Your task to perform on an android device: Open eBay Image 0: 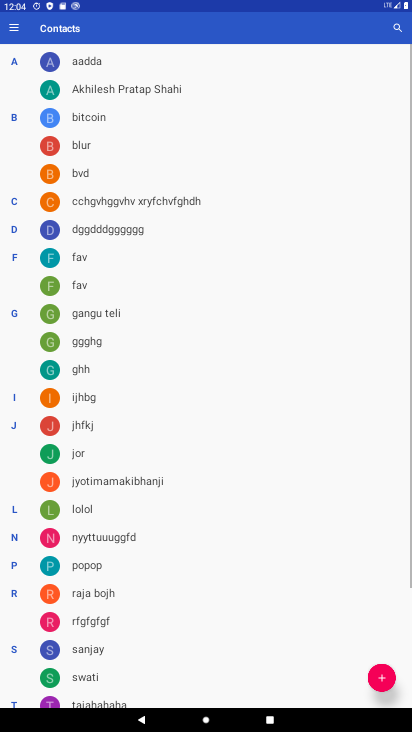
Step 0: press home button
Your task to perform on an android device: Open eBay Image 1: 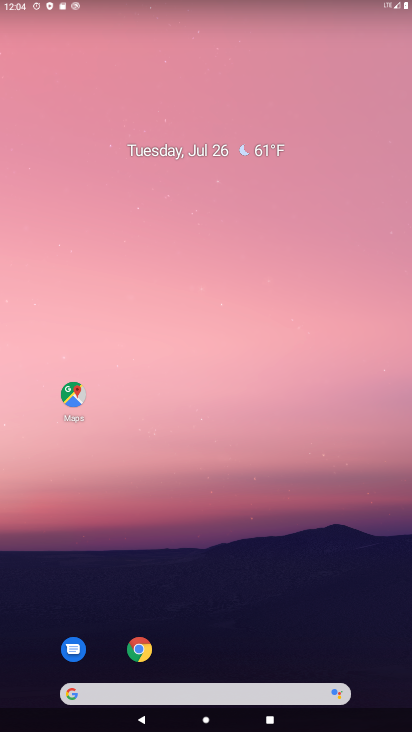
Step 1: click (145, 643)
Your task to perform on an android device: Open eBay Image 2: 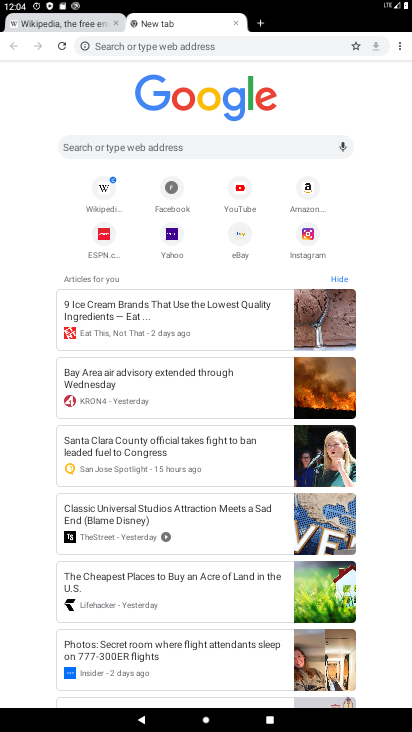
Step 2: click (241, 240)
Your task to perform on an android device: Open eBay Image 3: 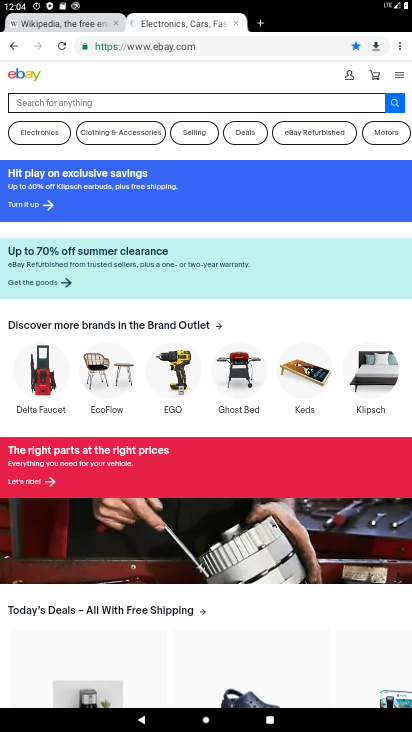
Step 3: task complete